Your task to perform on an android device: Search for Italian restaurants on Maps Image 0: 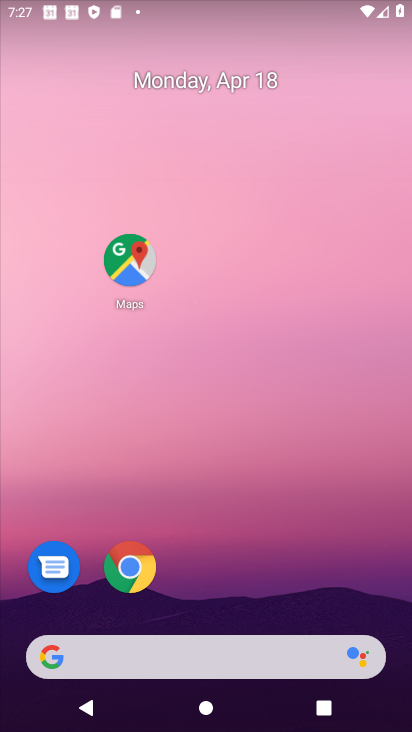
Step 0: drag from (138, 269) to (112, 408)
Your task to perform on an android device: Search for Italian restaurants on Maps Image 1: 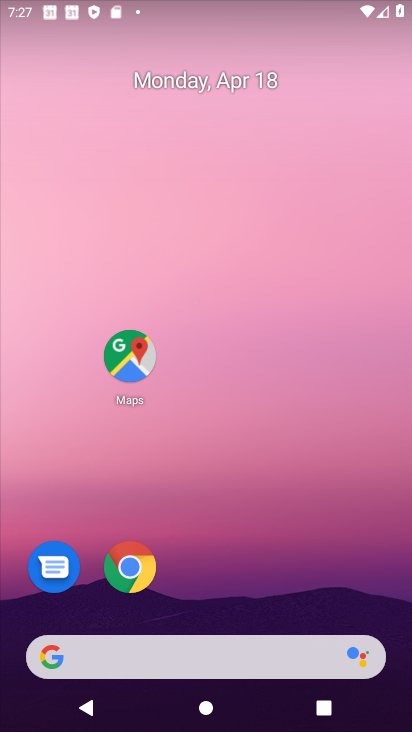
Step 1: click (128, 359)
Your task to perform on an android device: Search for Italian restaurants on Maps Image 2: 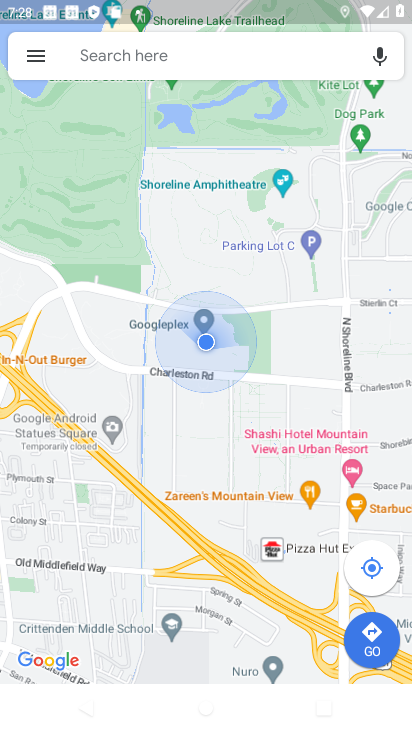
Step 2: click (186, 60)
Your task to perform on an android device: Search for Italian restaurants on Maps Image 3: 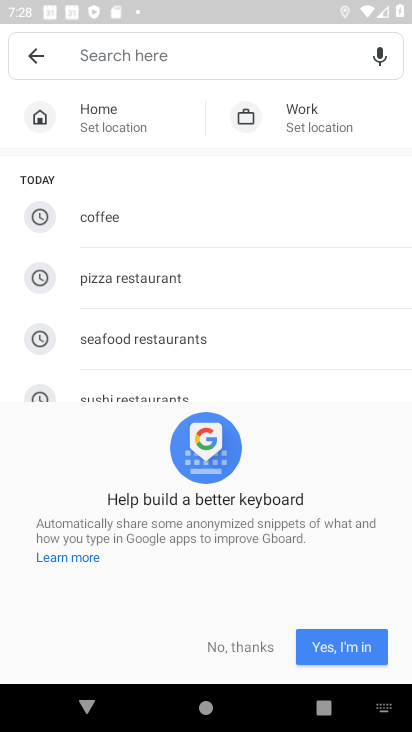
Step 3: click (241, 642)
Your task to perform on an android device: Search for Italian restaurants on Maps Image 4: 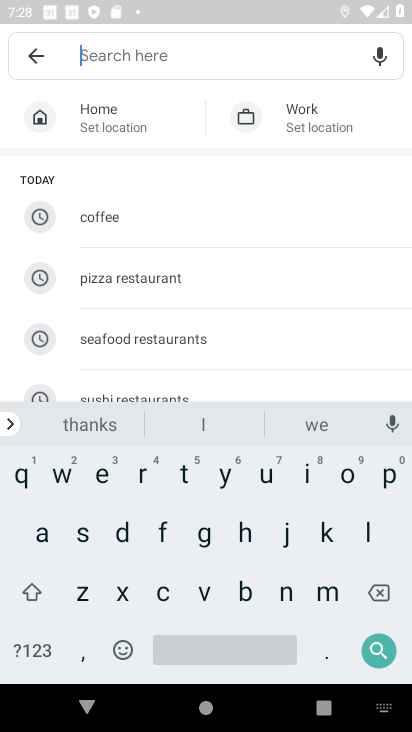
Step 4: click (304, 470)
Your task to perform on an android device: Search for Italian restaurants on Maps Image 5: 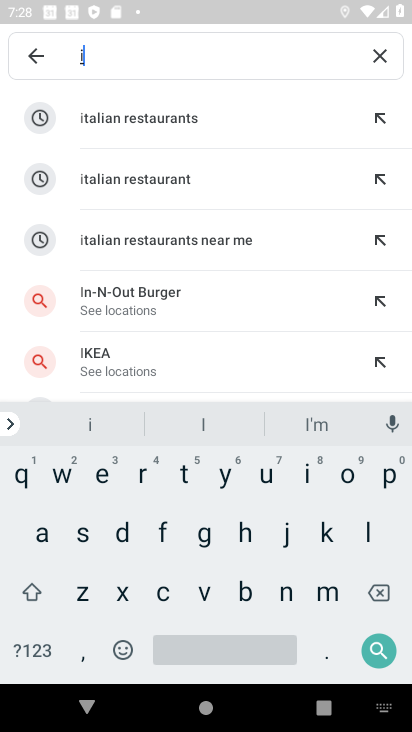
Step 5: click (161, 115)
Your task to perform on an android device: Search for Italian restaurants on Maps Image 6: 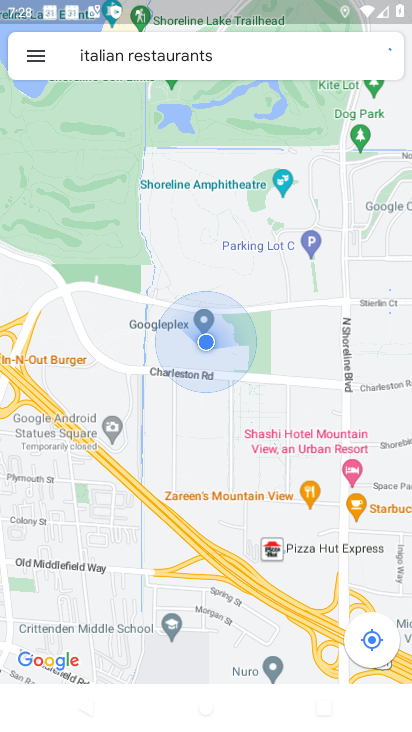
Step 6: task complete